Your task to perform on an android device: What's on my calendar today? Image 0: 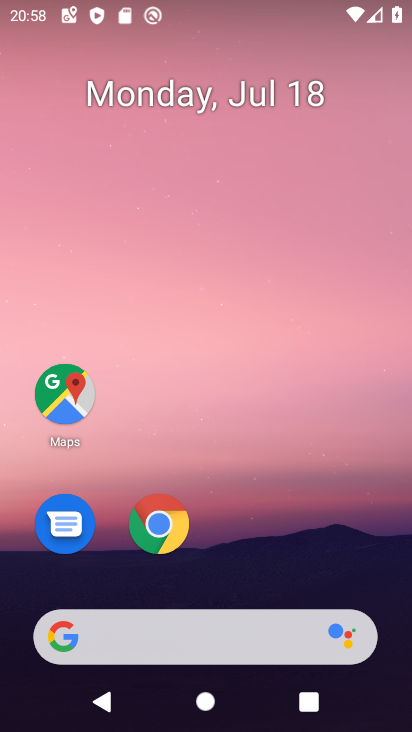
Step 0: drag from (260, 537) to (286, 20)
Your task to perform on an android device: What's on my calendar today? Image 1: 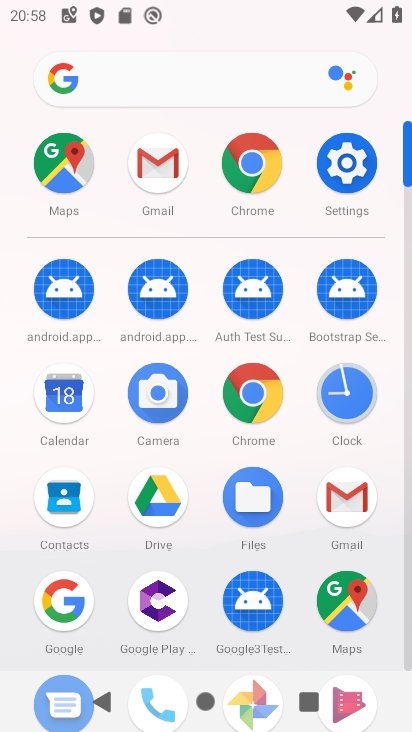
Step 1: click (71, 387)
Your task to perform on an android device: What's on my calendar today? Image 2: 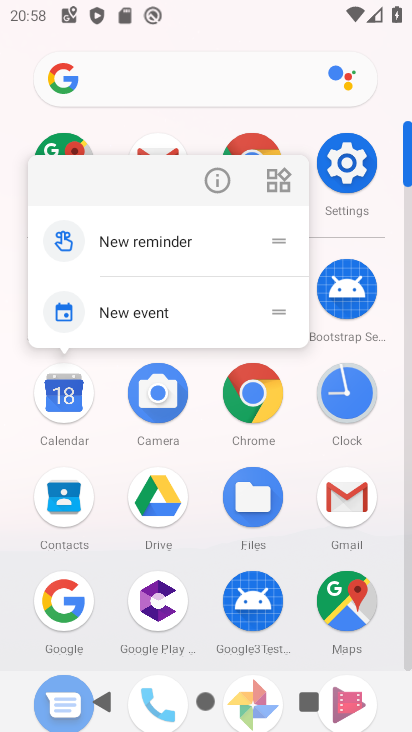
Step 2: click (71, 391)
Your task to perform on an android device: What's on my calendar today? Image 3: 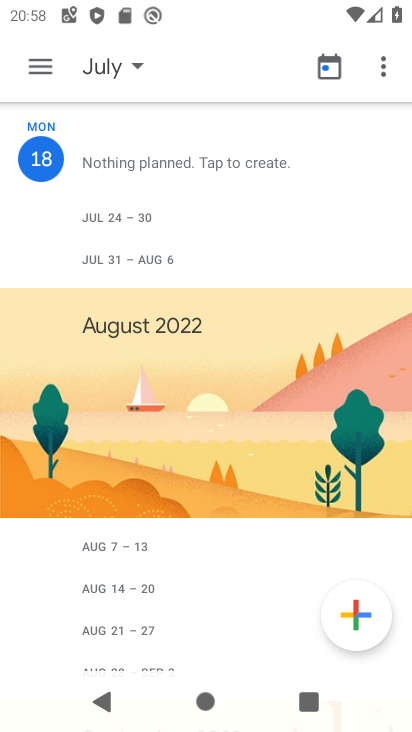
Step 3: task complete